Your task to perform on an android device: Open Android settings Image 0: 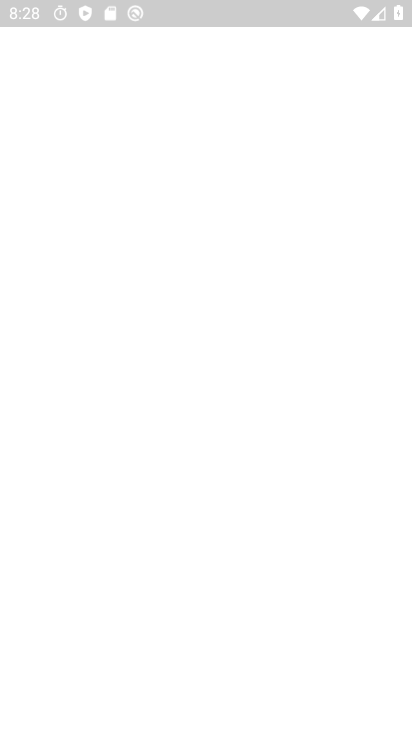
Step 0: press home button
Your task to perform on an android device: Open Android settings Image 1: 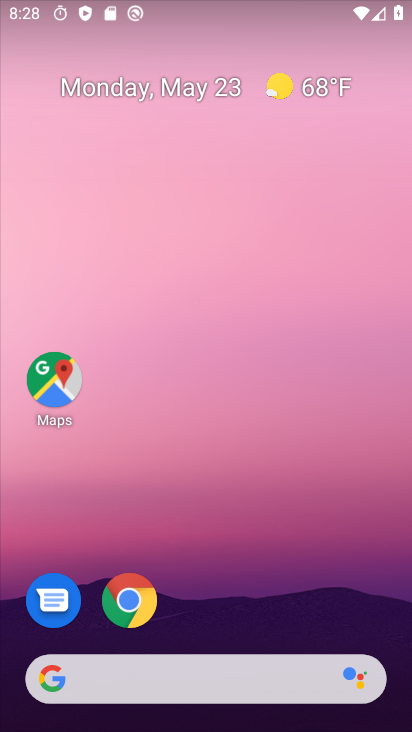
Step 1: drag from (49, 654) to (210, 121)
Your task to perform on an android device: Open Android settings Image 2: 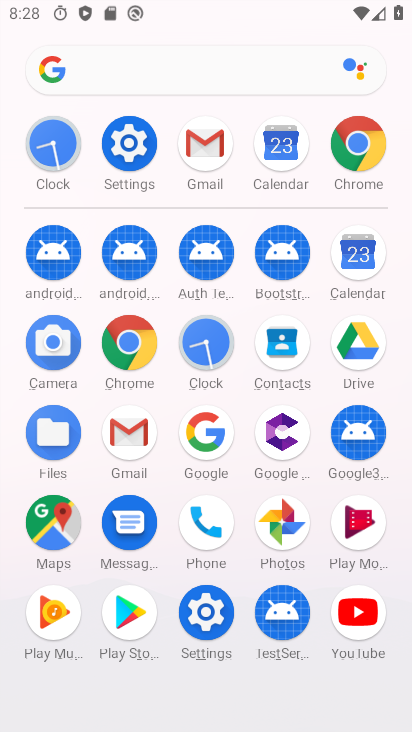
Step 2: click (150, 158)
Your task to perform on an android device: Open Android settings Image 3: 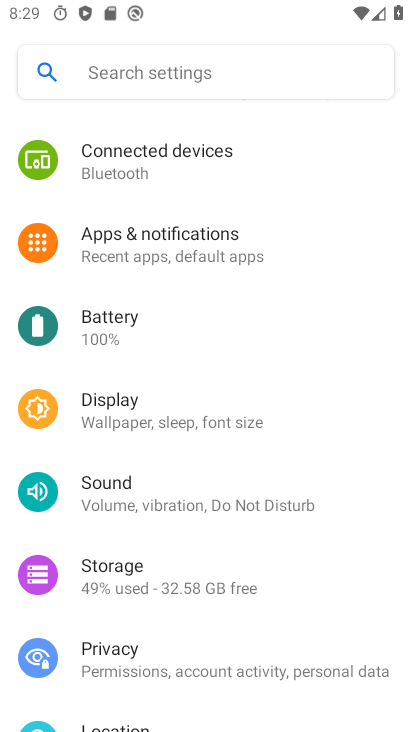
Step 3: drag from (25, 540) to (236, 132)
Your task to perform on an android device: Open Android settings Image 4: 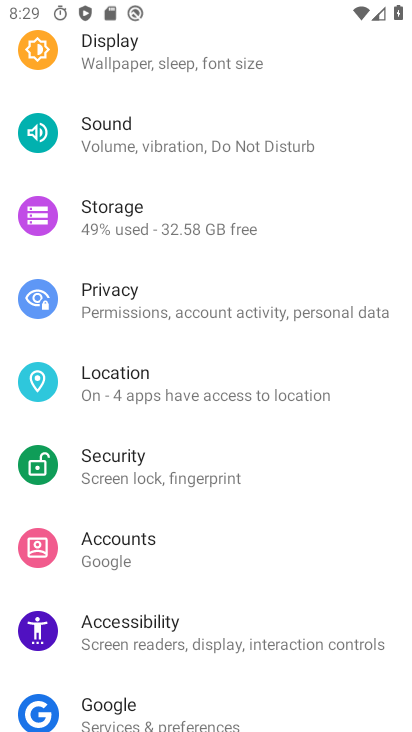
Step 4: drag from (23, 619) to (284, 57)
Your task to perform on an android device: Open Android settings Image 5: 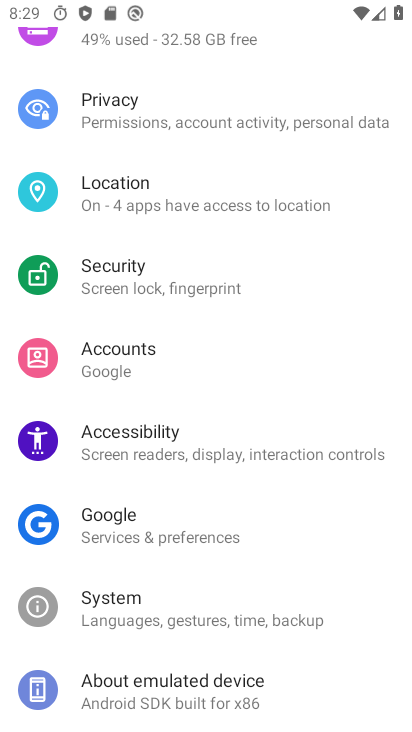
Step 5: click (177, 694)
Your task to perform on an android device: Open Android settings Image 6: 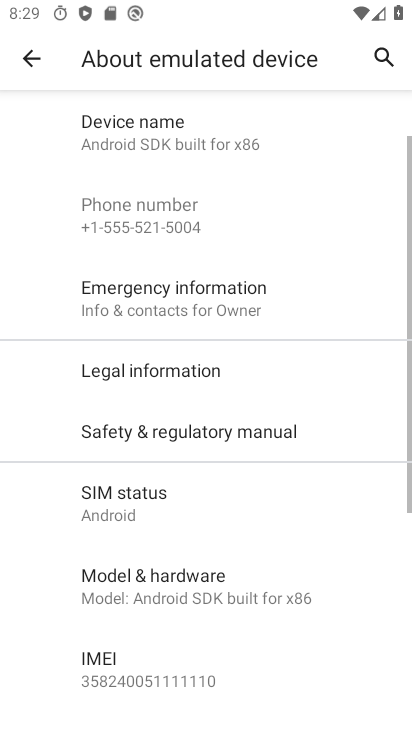
Step 6: drag from (67, 647) to (291, 112)
Your task to perform on an android device: Open Android settings Image 7: 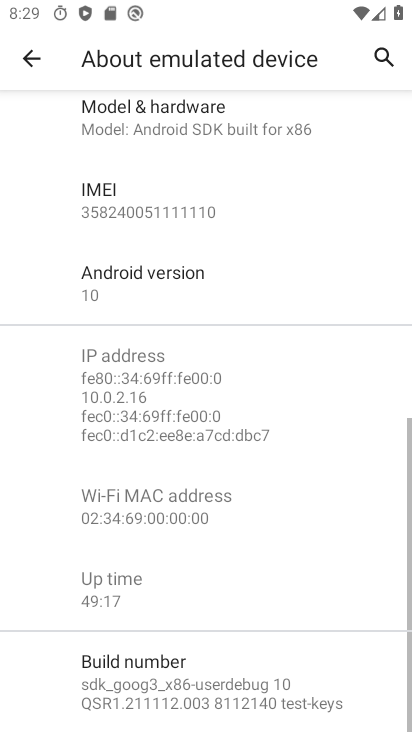
Step 7: click (168, 284)
Your task to perform on an android device: Open Android settings Image 8: 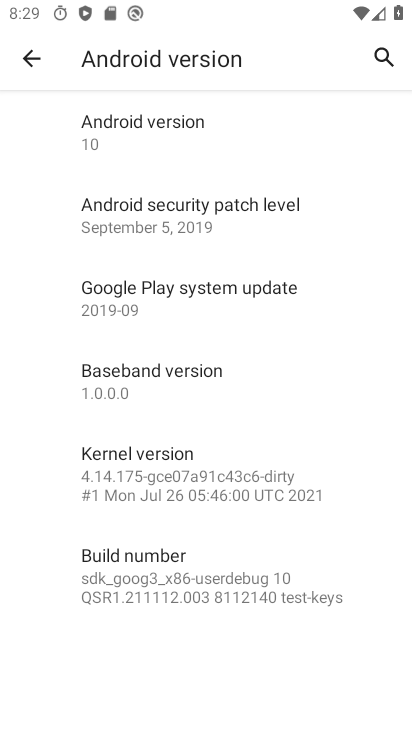
Step 8: task complete